Your task to perform on an android device: turn on the 24-hour format for clock Image 0: 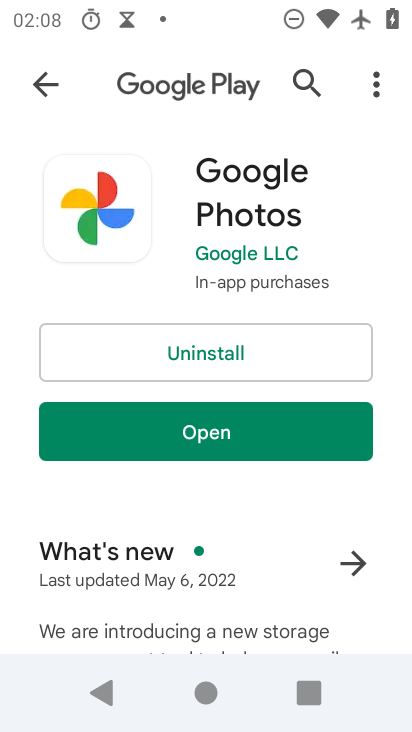
Step 0: press home button
Your task to perform on an android device: turn on the 24-hour format for clock Image 1: 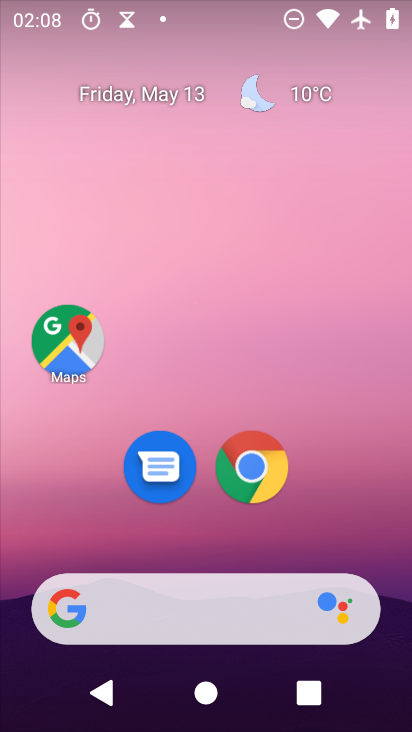
Step 1: drag from (313, 558) to (310, 160)
Your task to perform on an android device: turn on the 24-hour format for clock Image 2: 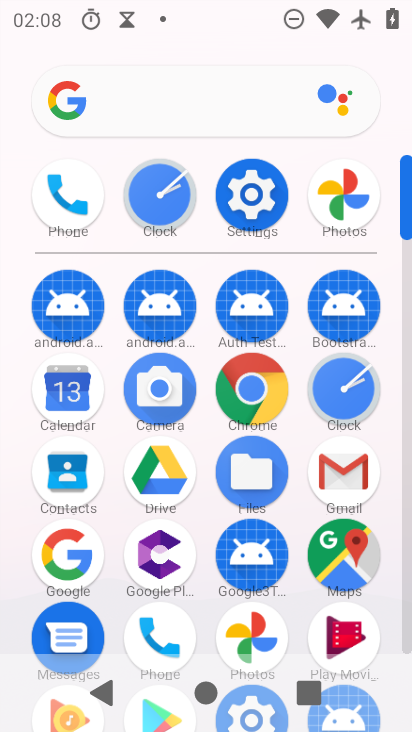
Step 2: click (348, 386)
Your task to perform on an android device: turn on the 24-hour format for clock Image 3: 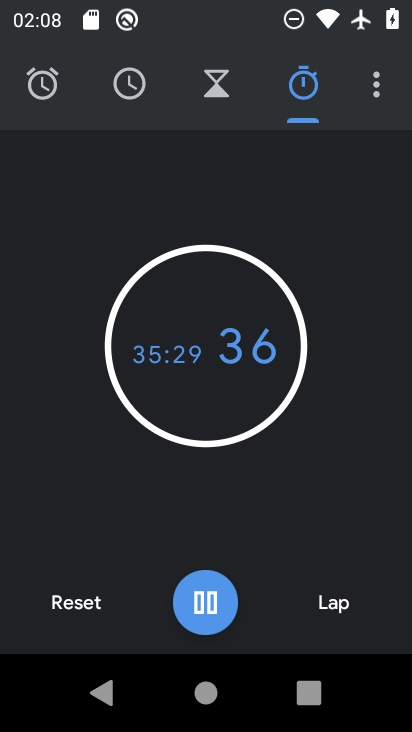
Step 3: click (379, 91)
Your task to perform on an android device: turn on the 24-hour format for clock Image 4: 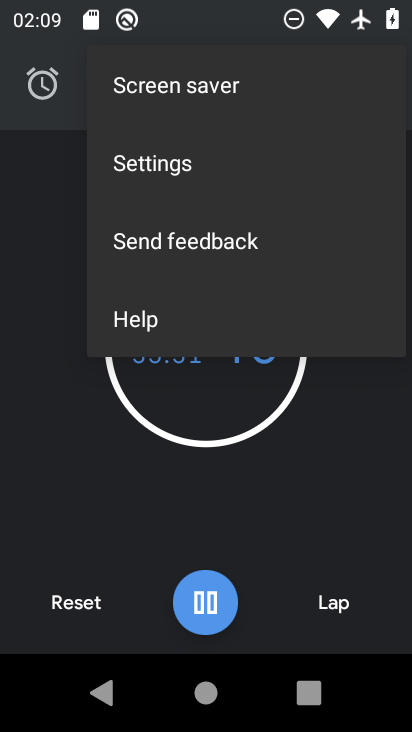
Step 4: click (179, 180)
Your task to perform on an android device: turn on the 24-hour format for clock Image 5: 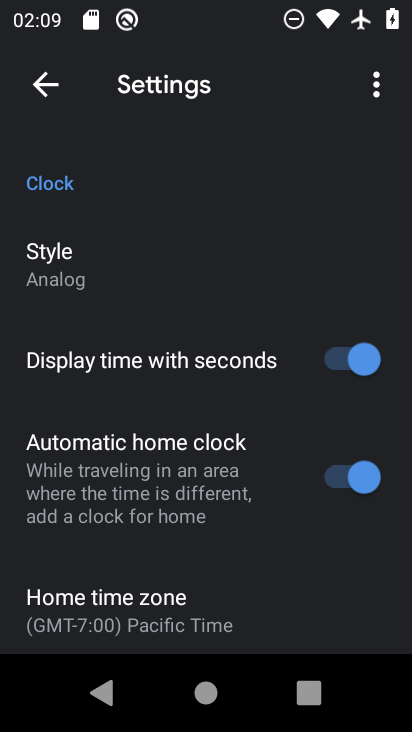
Step 5: drag from (277, 535) to (239, 224)
Your task to perform on an android device: turn on the 24-hour format for clock Image 6: 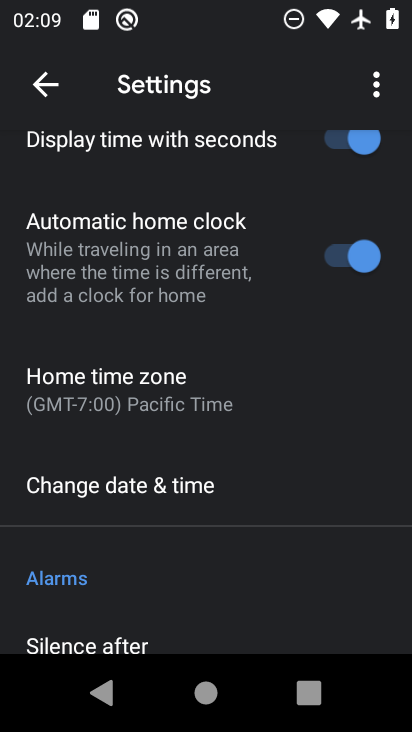
Step 6: click (173, 486)
Your task to perform on an android device: turn on the 24-hour format for clock Image 7: 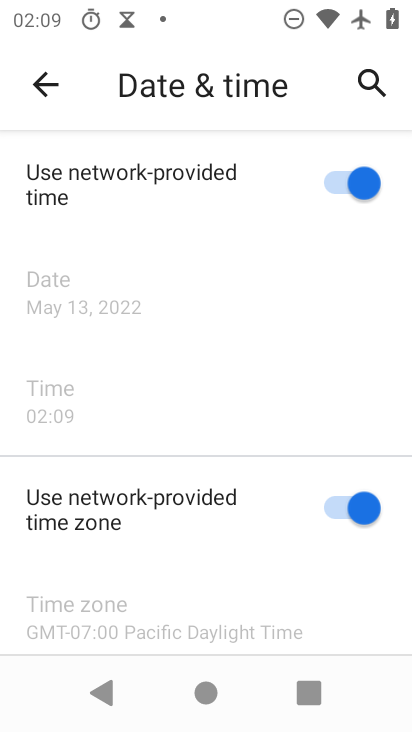
Step 7: task complete